Your task to perform on an android device: make emails show in primary in the gmail app Image 0: 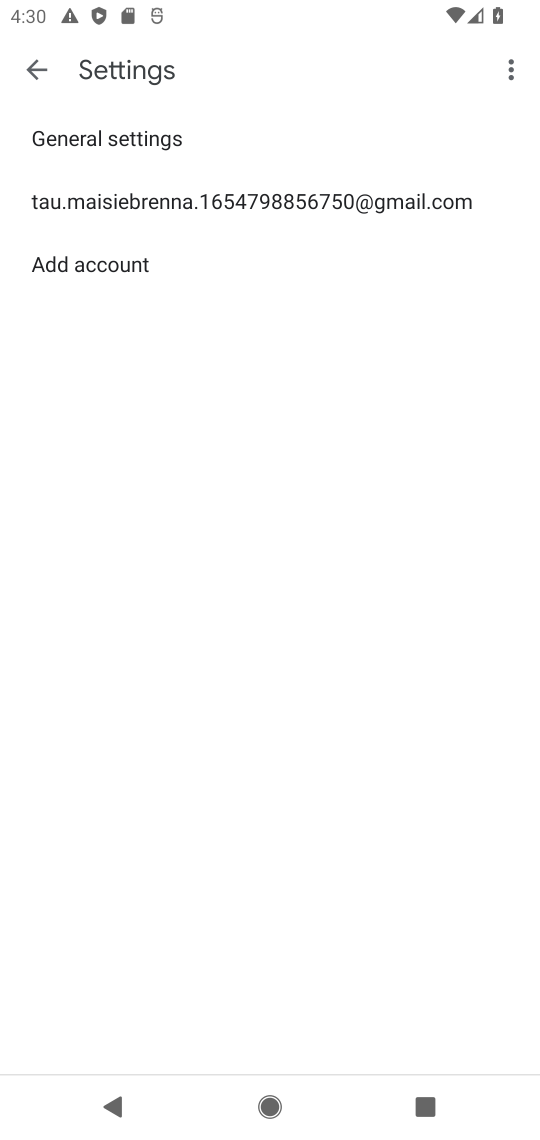
Step 0: press home button
Your task to perform on an android device: make emails show in primary in the gmail app Image 1: 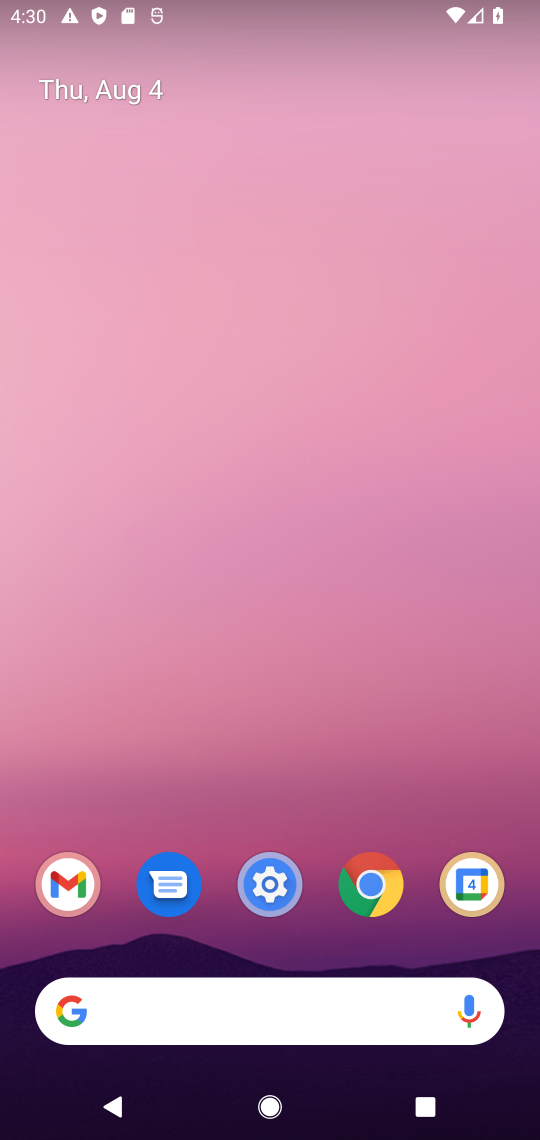
Step 1: drag from (367, 826) to (356, 723)
Your task to perform on an android device: make emails show in primary in the gmail app Image 2: 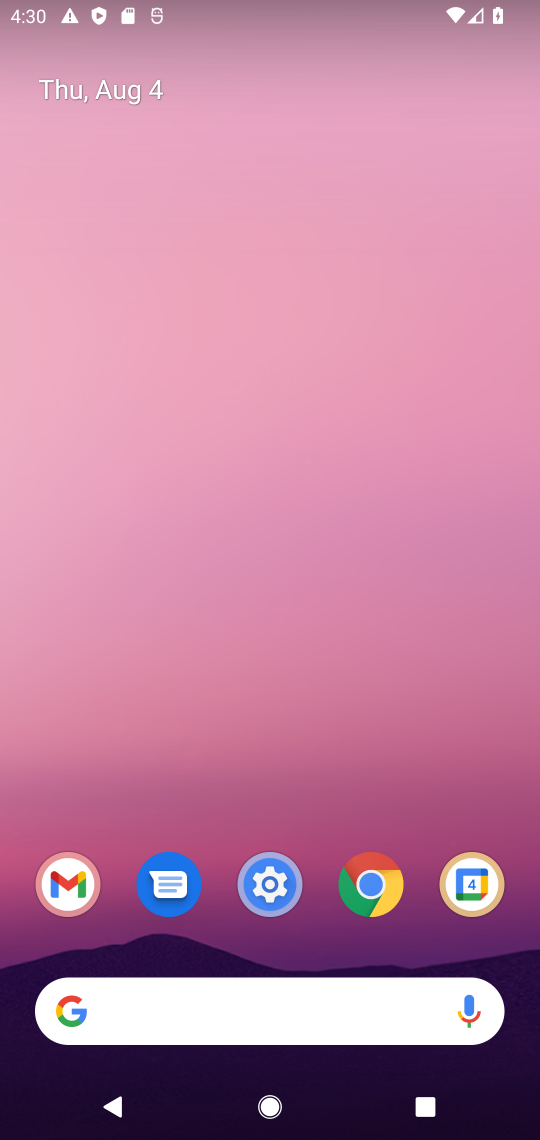
Step 2: click (60, 884)
Your task to perform on an android device: make emails show in primary in the gmail app Image 3: 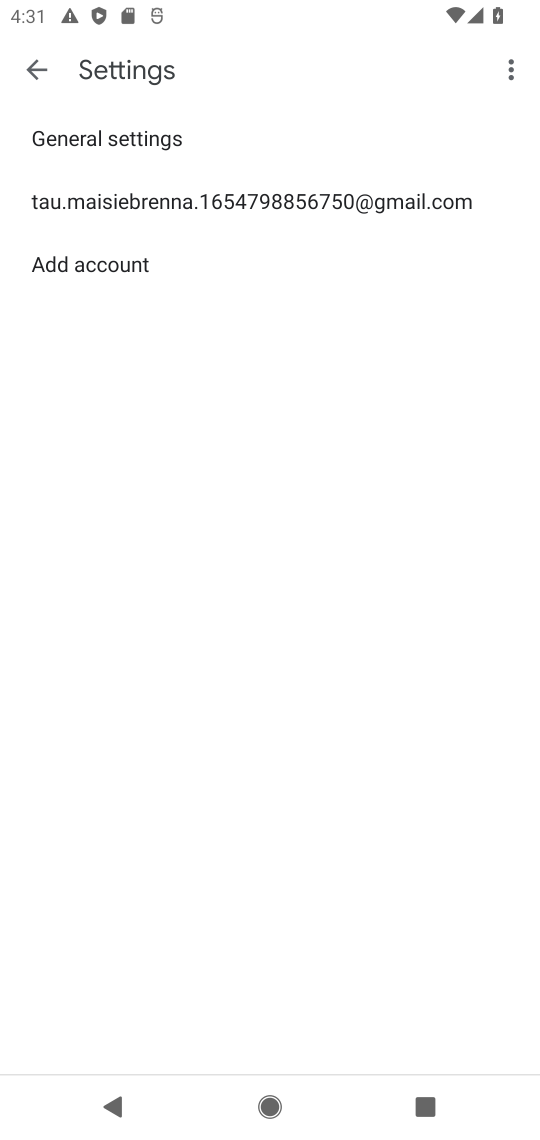
Step 3: click (191, 204)
Your task to perform on an android device: make emails show in primary in the gmail app Image 4: 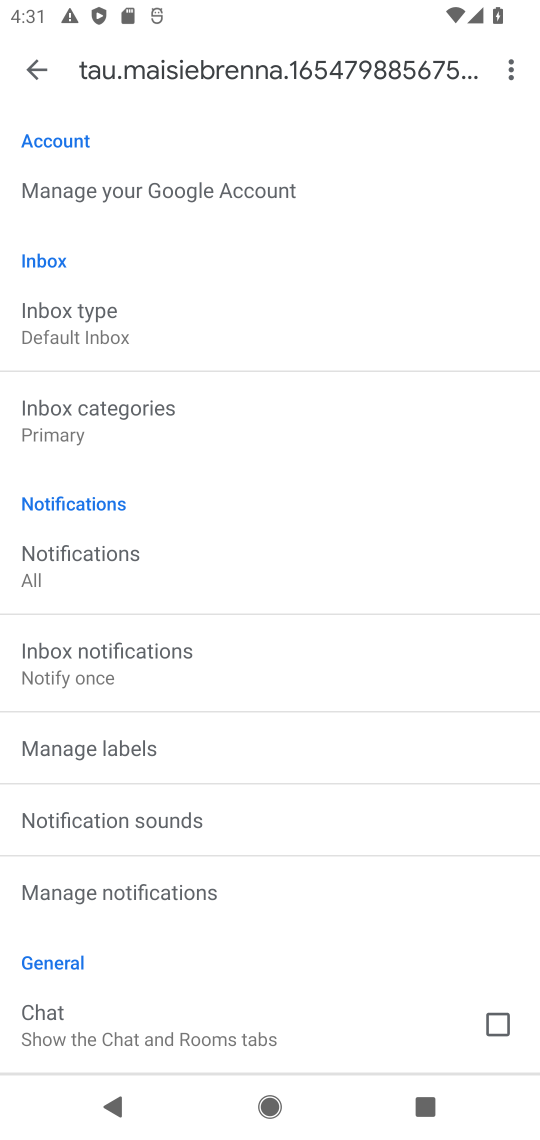
Step 4: task complete